Your task to perform on an android device: Go to eBay Image 0: 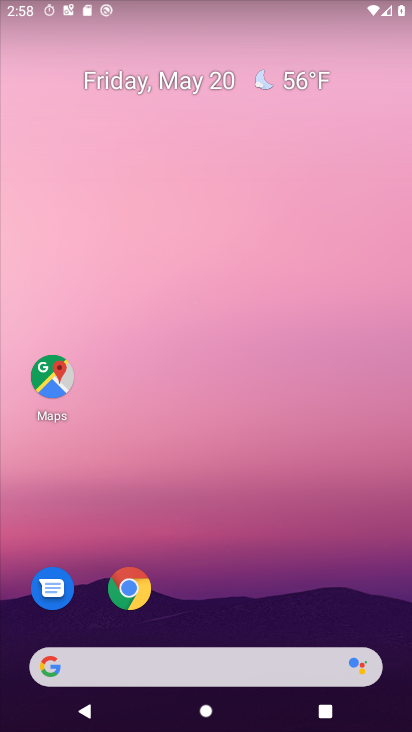
Step 0: click (137, 593)
Your task to perform on an android device: Go to eBay Image 1: 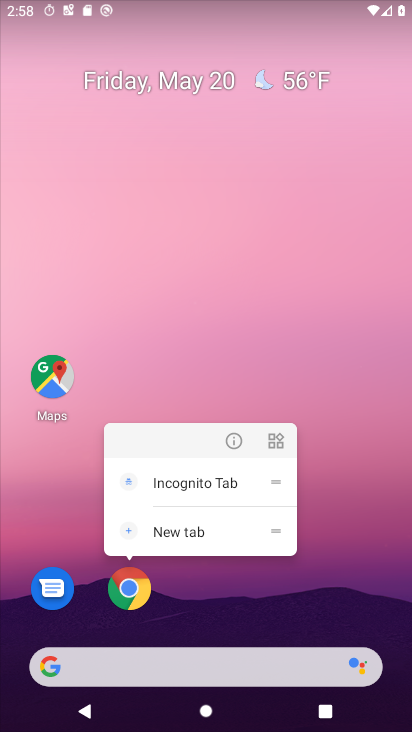
Step 1: click (131, 583)
Your task to perform on an android device: Go to eBay Image 2: 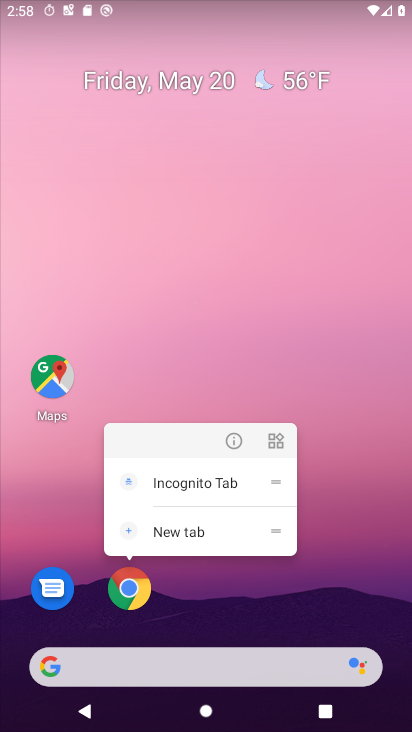
Step 2: click (120, 581)
Your task to perform on an android device: Go to eBay Image 3: 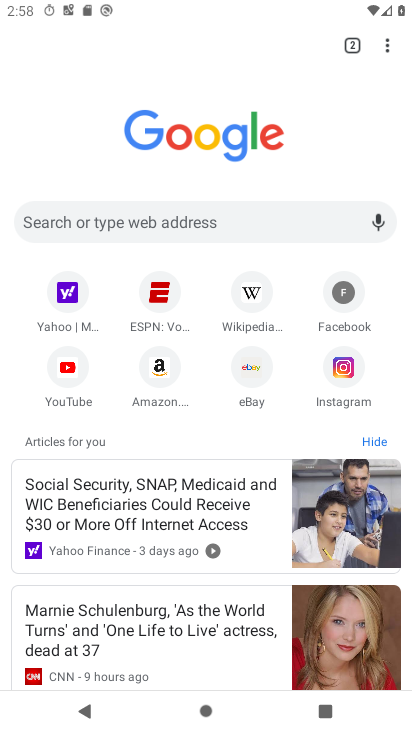
Step 3: click (253, 370)
Your task to perform on an android device: Go to eBay Image 4: 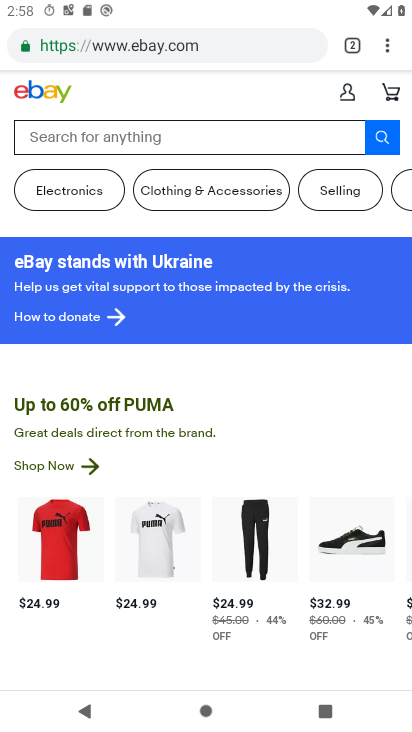
Step 4: task complete